Your task to perform on an android device: Open Google Maps and go to "Timeline" Image 0: 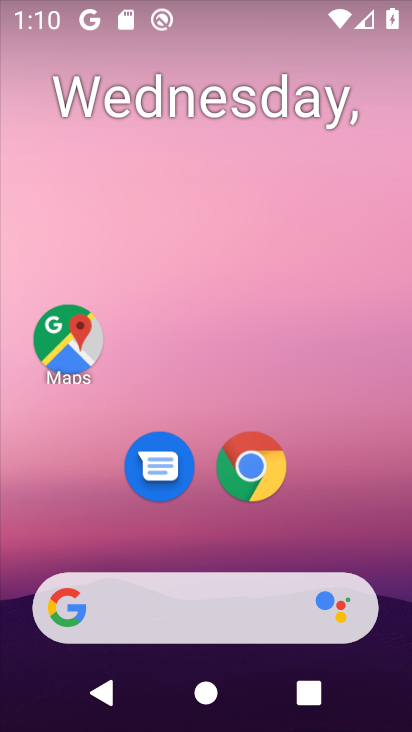
Step 0: click (35, 361)
Your task to perform on an android device: Open Google Maps and go to "Timeline" Image 1: 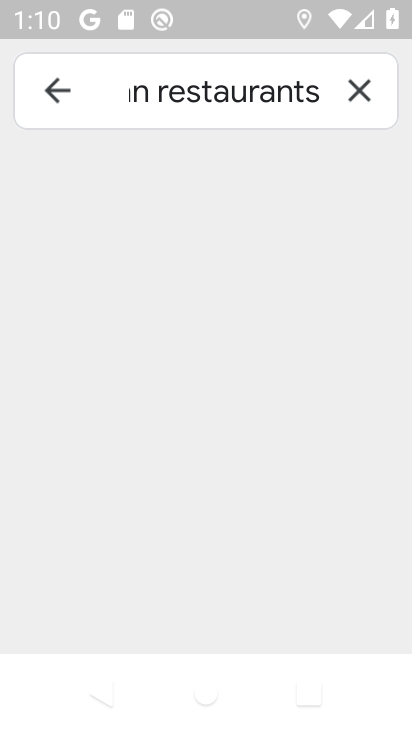
Step 1: click (54, 73)
Your task to perform on an android device: Open Google Maps and go to "Timeline" Image 2: 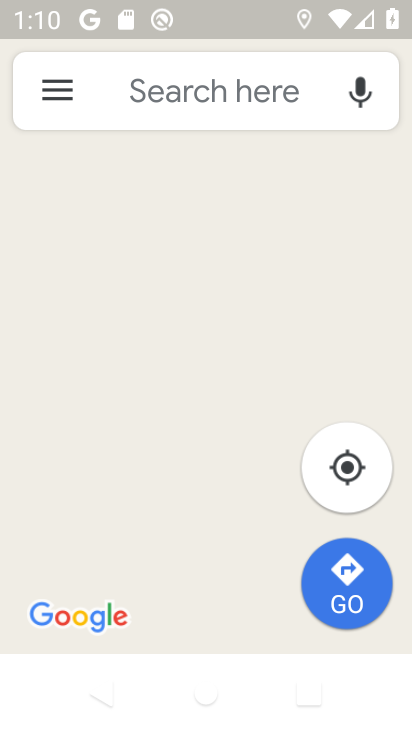
Step 2: click (55, 81)
Your task to perform on an android device: Open Google Maps and go to "Timeline" Image 3: 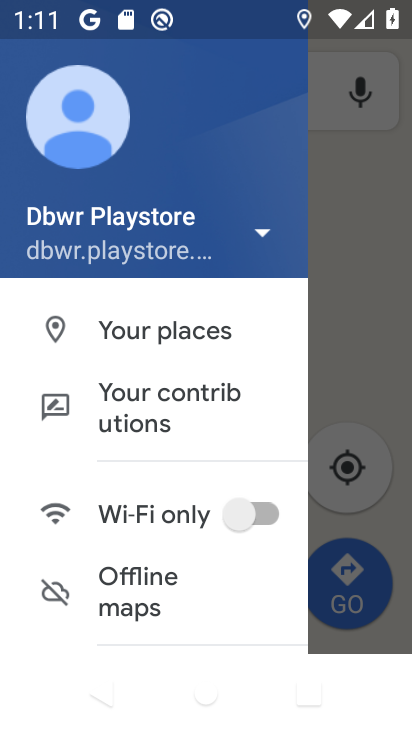
Step 3: drag from (162, 566) to (171, 166)
Your task to perform on an android device: Open Google Maps and go to "Timeline" Image 4: 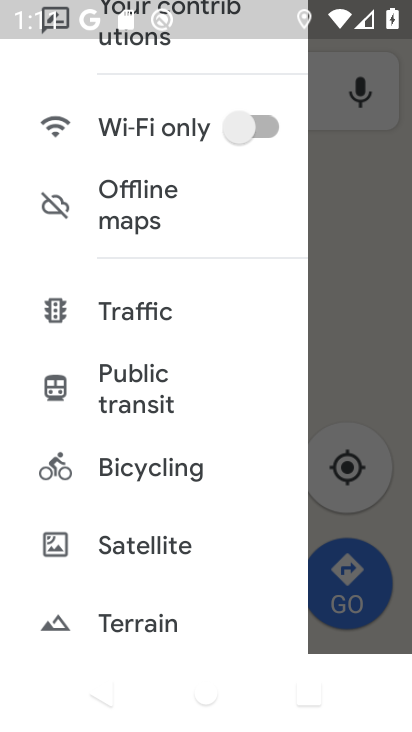
Step 4: drag from (168, 611) to (121, 254)
Your task to perform on an android device: Open Google Maps and go to "Timeline" Image 5: 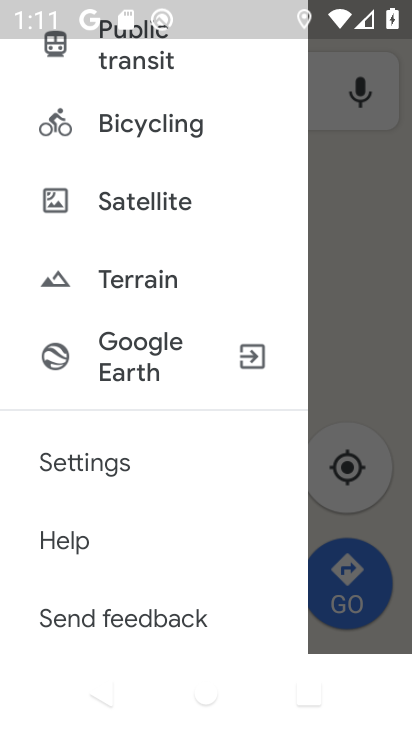
Step 5: drag from (153, 523) to (87, 238)
Your task to perform on an android device: Open Google Maps and go to "Timeline" Image 6: 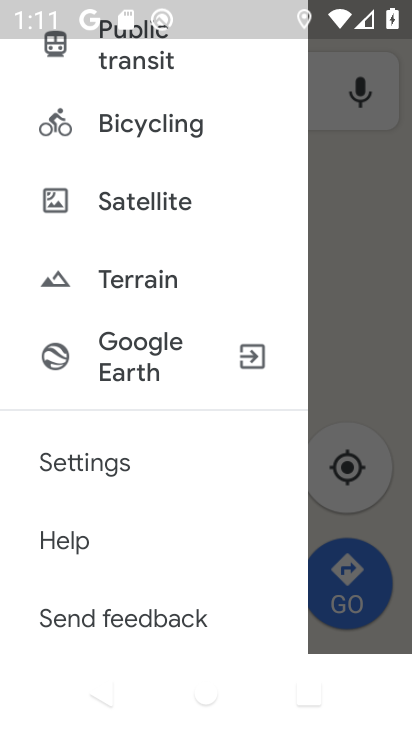
Step 6: click (115, 464)
Your task to perform on an android device: Open Google Maps and go to "Timeline" Image 7: 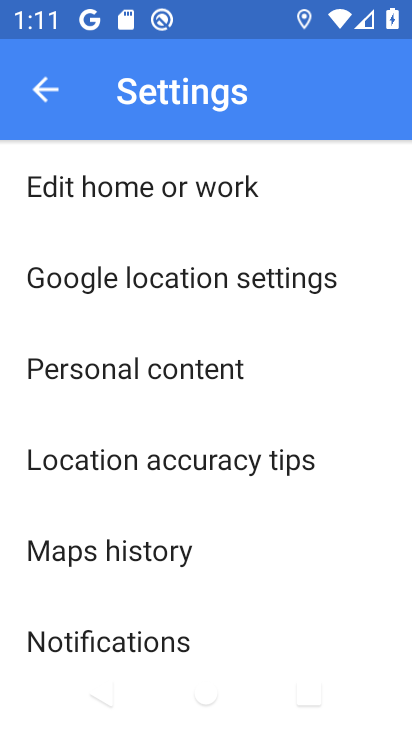
Step 7: drag from (237, 604) to (192, 236)
Your task to perform on an android device: Open Google Maps and go to "Timeline" Image 8: 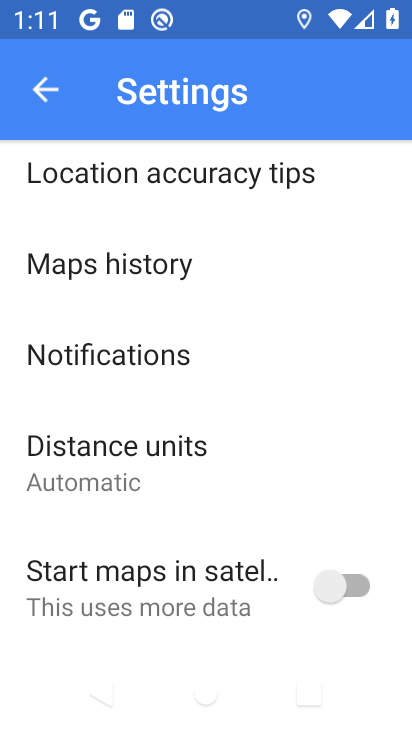
Step 8: drag from (215, 544) to (174, 237)
Your task to perform on an android device: Open Google Maps and go to "Timeline" Image 9: 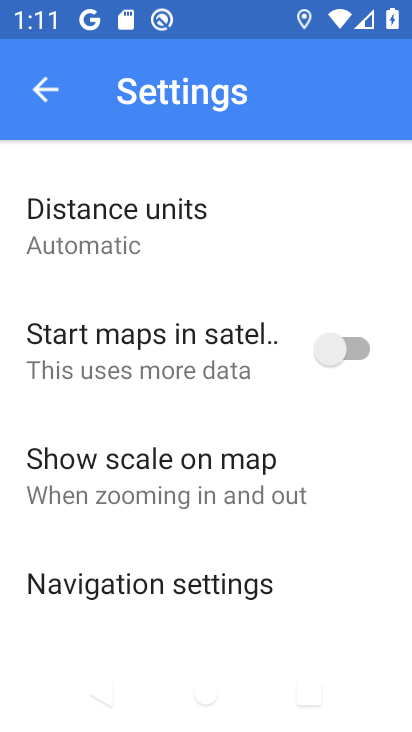
Step 9: drag from (273, 536) to (218, 235)
Your task to perform on an android device: Open Google Maps and go to "Timeline" Image 10: 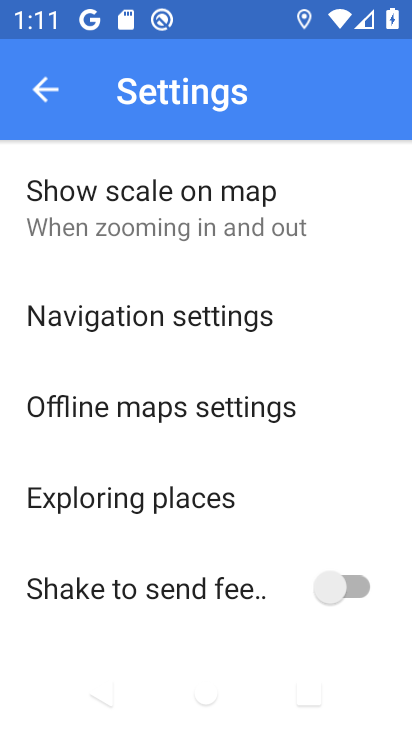
Step 10: press back button
Your task to perform on an android device: Open Google Maps and go to "Timeline" Image 11: 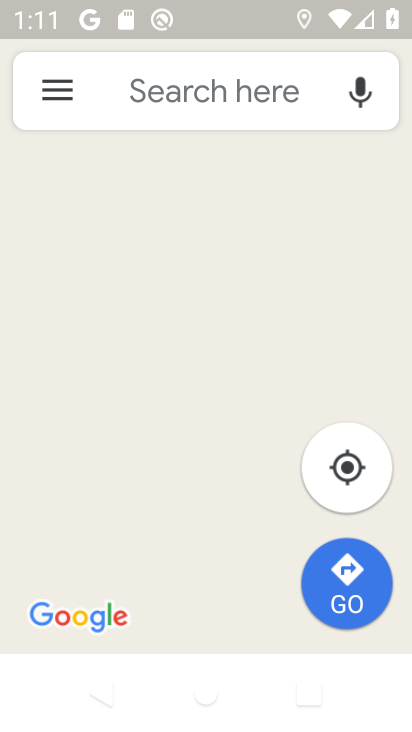
Step 11: click (146, 90)
Your task to perform on an android device: Open Google Maps and go to "Timeline" Image 12: 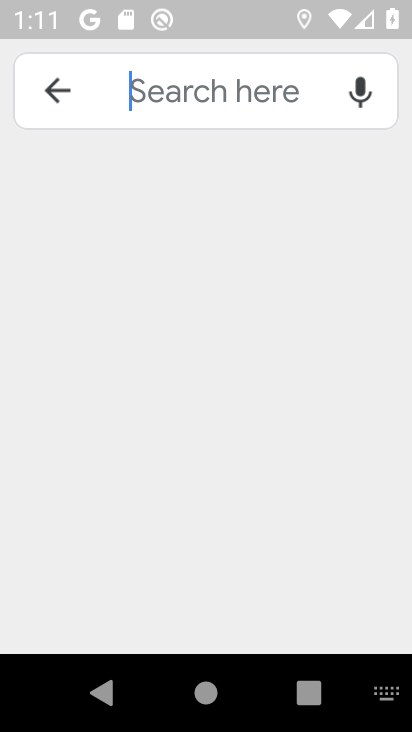
Step 12: type "Timeline"
Your task to perform on an android device: Open Google Maps and go to "Timeline" Image 13: 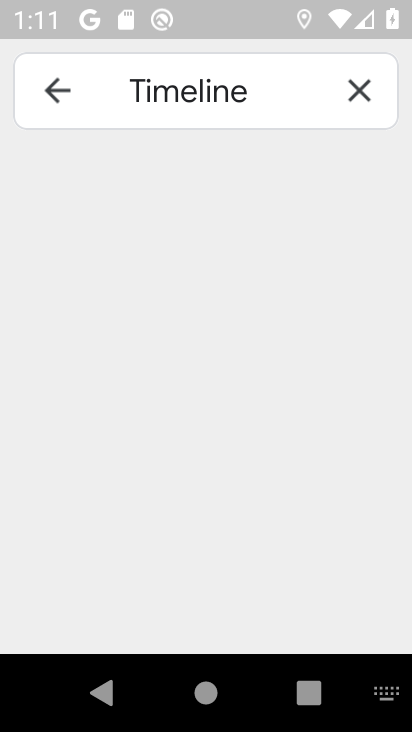
Step 13: click (272, 107)
Your task to perform on an android device: Open Google Maps and go to "Timeline" Image 14: 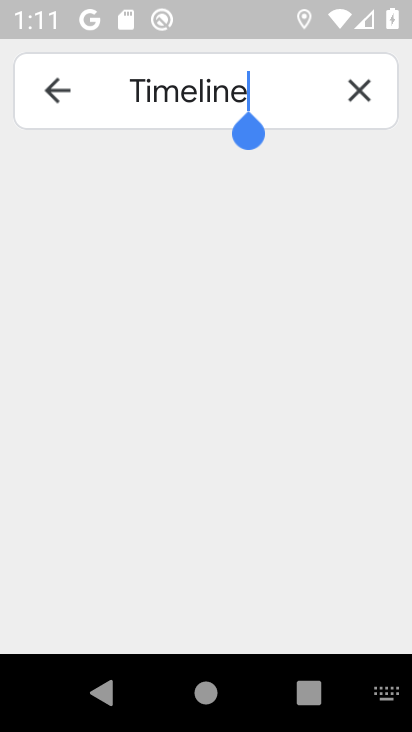
Step 14: click (272, 107)
Your task to perform on an android device: Open Google Maps and go to "Timeline" Image 15: 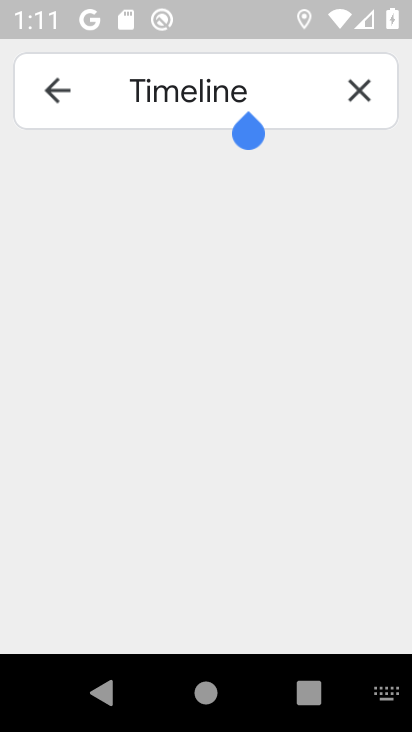
Step 15: click (272, 107)
Your task to perform on an android device: Open Google Maps and go to "Timeline" Image 16: 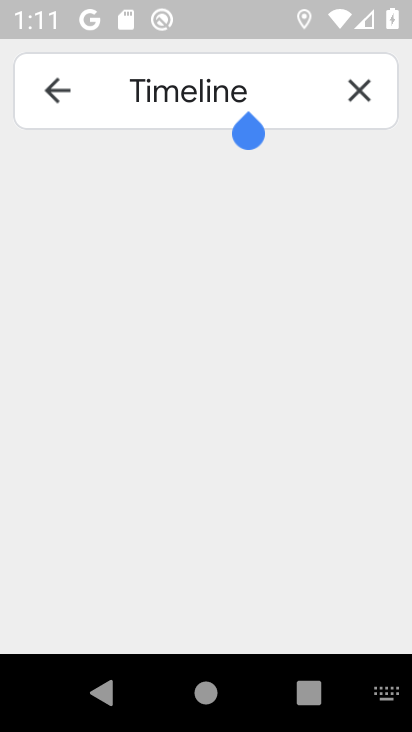
Step 16: click (272, 107)
Your task to perform on an android device: Open Google Maps and go to "Timeline" Image 17: 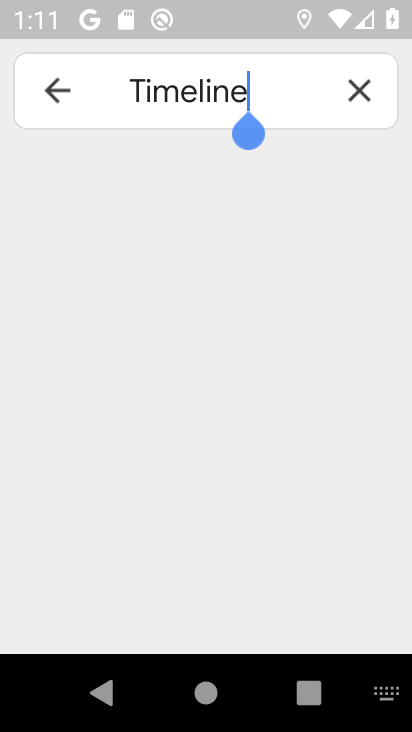
Step 17: click (272, 107)
Your task to perform on an android device: Open Google Maps and go to "Timeline" Image 18: 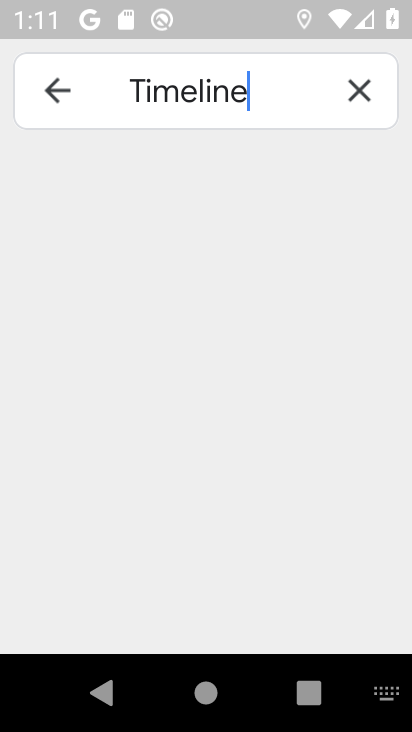
Step 18: click (272, 107)
Your task to perform on an android device: Open Google Maps and go to "Timeline" Image 19: 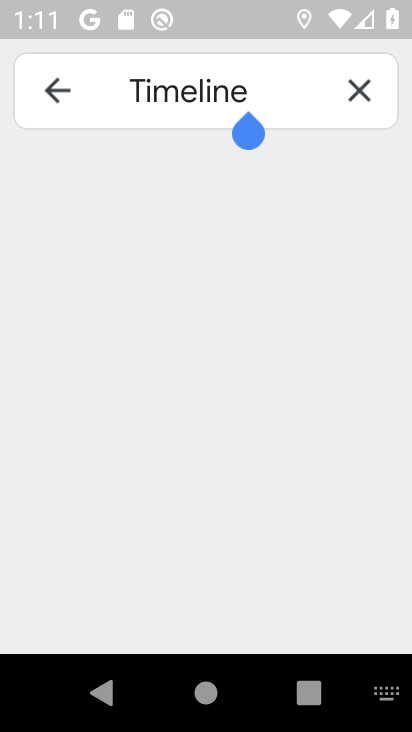
Step 19: click (75, 85)
Your task to perform on an android device: Open Google Maps and go to "Timeline" Image 20: 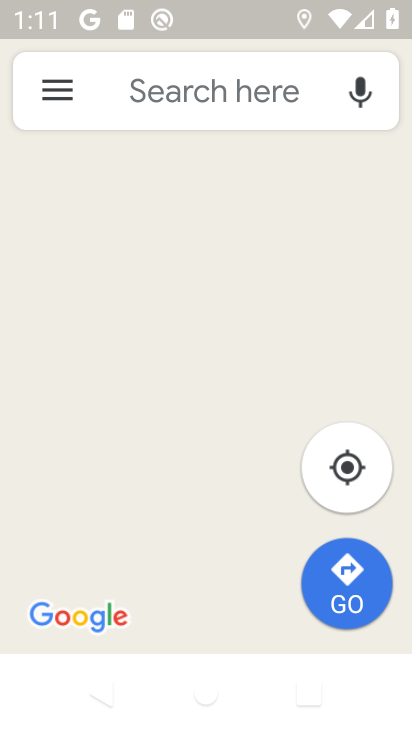
Step 20: click (156, 104)
Your task to perform on an android device: Open Google Maps and go to "Timeline" Image 21: 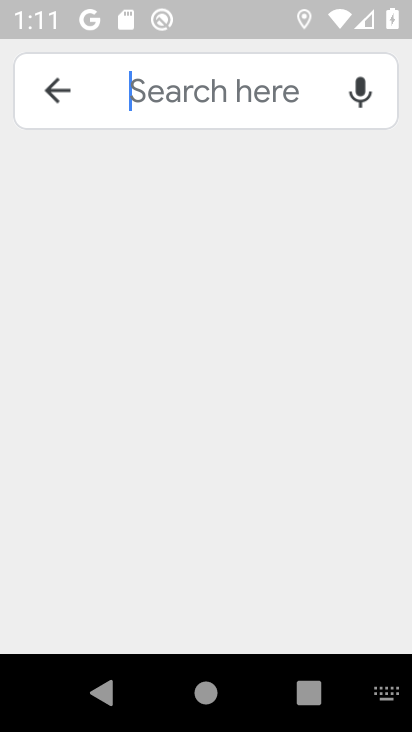
Step 21: click (156, 104)
Your task to perform on an android device: Open Google Maps and go to "Timeline" Image 22: 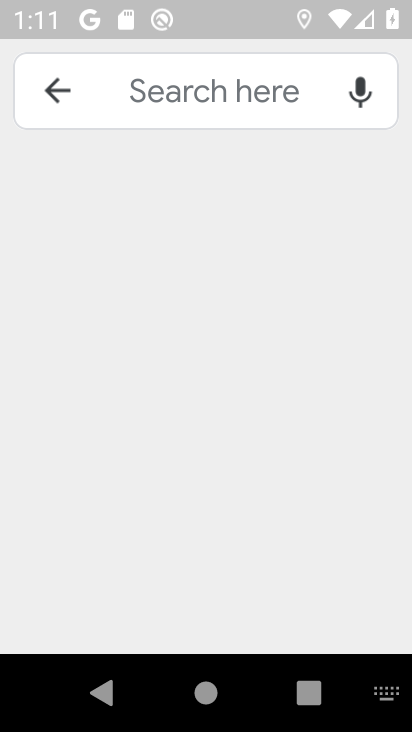
Step 22: task complete